Your task to perform on an android device: Go to display settings Image 0: 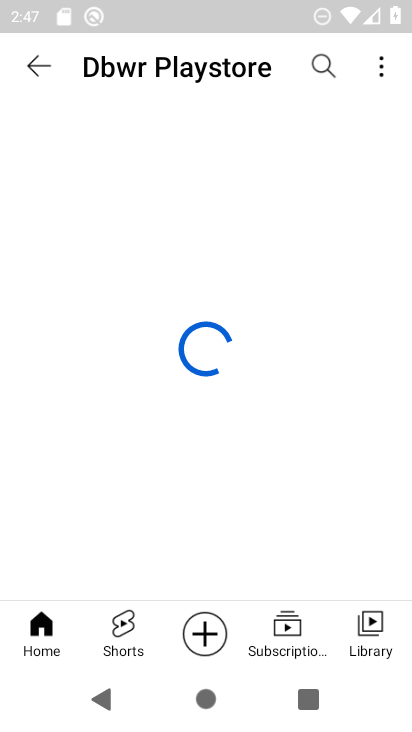
Step 0: press home button
Your task to perform on an android device: Go to display settings Image 1: 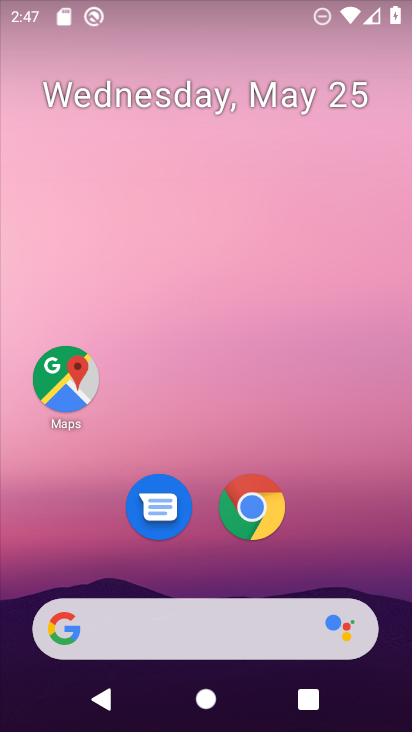
Step 1: drag from (244, 607) to (298, 115)
Your task to perform on an android device: Go to display settings Image 2: 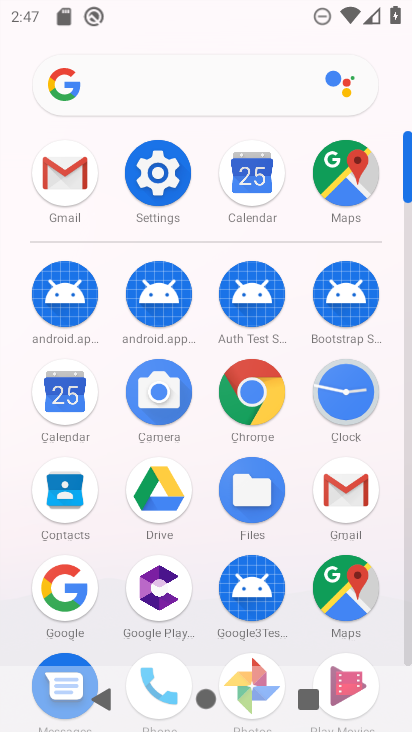
Step 2: click (165, 191)
Your task to perform on an android device: Go to display settings Image 3: 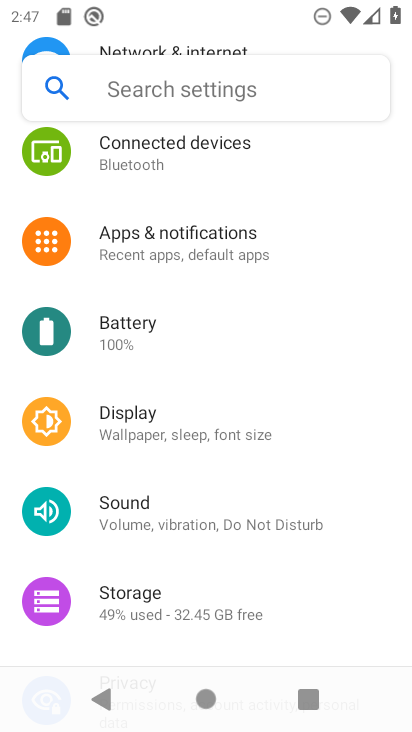
Step 3: drag from (228, 367) to (218, 563)
Your task to perform on an android device: Go to display settings Image 4: 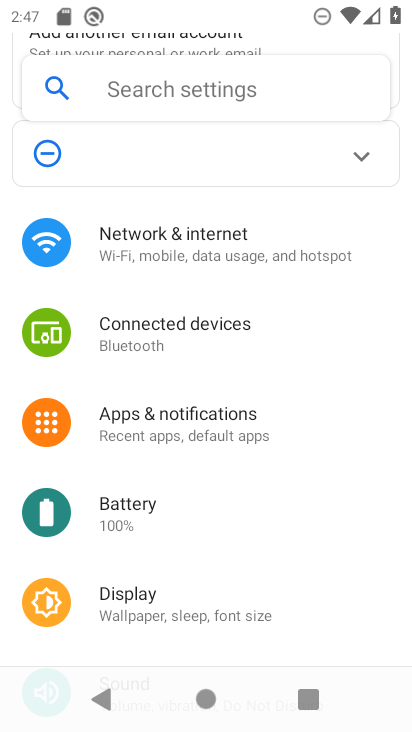
Step 4: click (224, 619)
Your task to perform on an android device: Go to display settings Image 5: 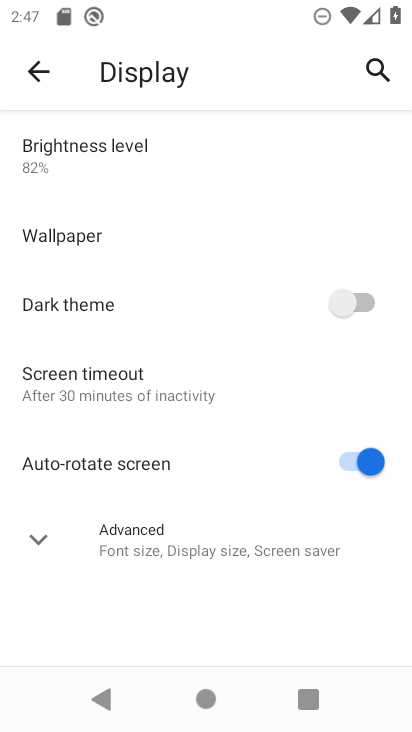
Step 5: task complete